Your task to perform on an android device: visit the assistant section in the google photos Image 0: 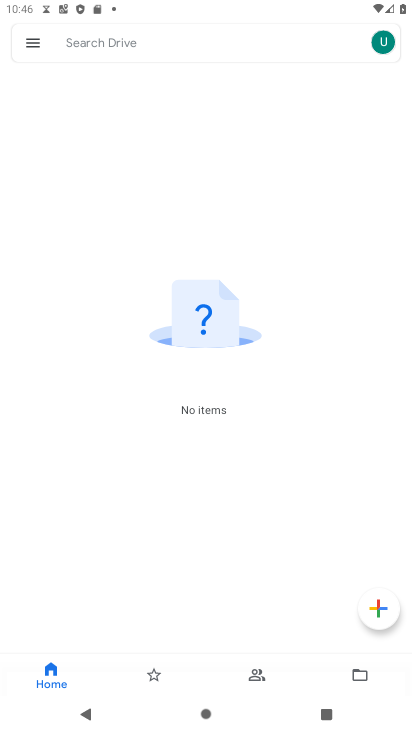
Step 0: press home button
Your task to perform on an android device: visit the assistant section in the google photos Image 1: 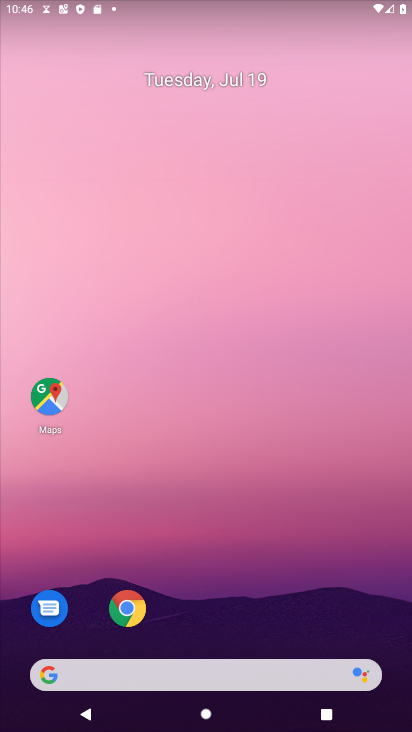
Step 1: drag from (244, 628) to (296, 171)
Your task to perform on an android device: visit the assistant section in the google photos Image 2: 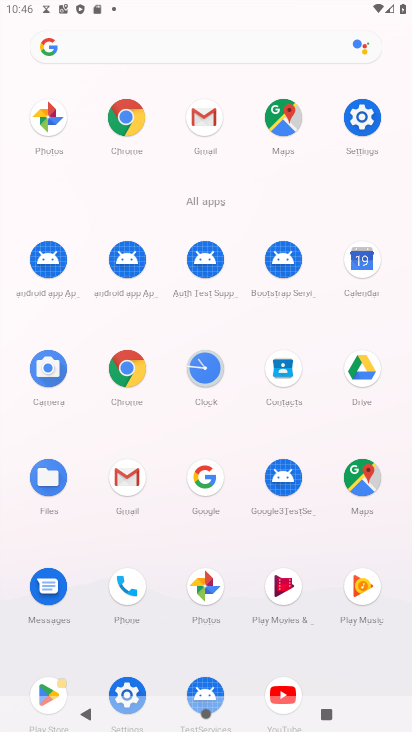
Step 2: click (213, 600)
Your task to perform on an android device: visit the assistant section in the google photos Image 3: 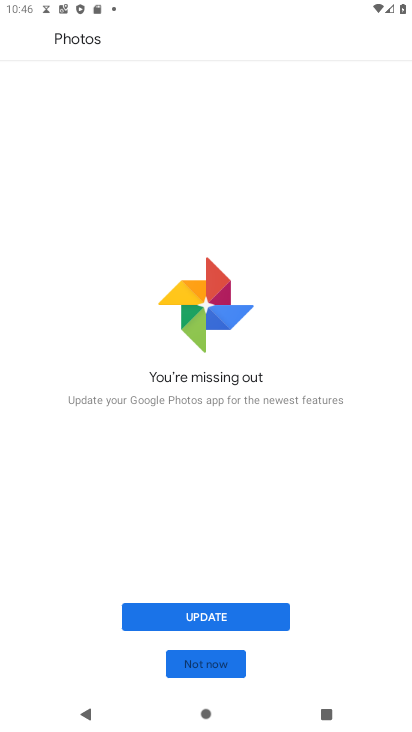
Step 3: click (215, 626)
Your task to perform on an android device: visit the assistant section in the google photos Image 4: 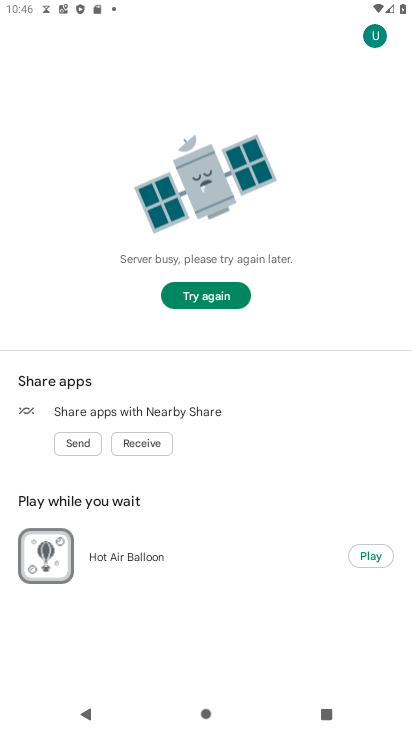
Step 4: click (196, 289)
Your task to perform on an android device: visit the assistant section in the google photos Image 5: 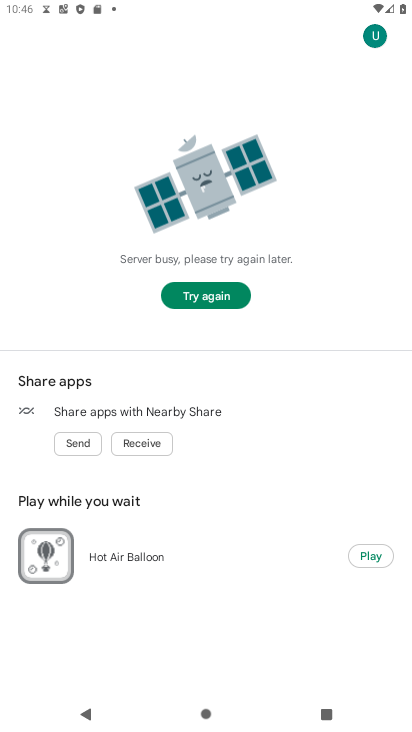
Step 5: click (199, 298)
Your task to perform on an android device: visit the assistant section in the google photos Image 6: 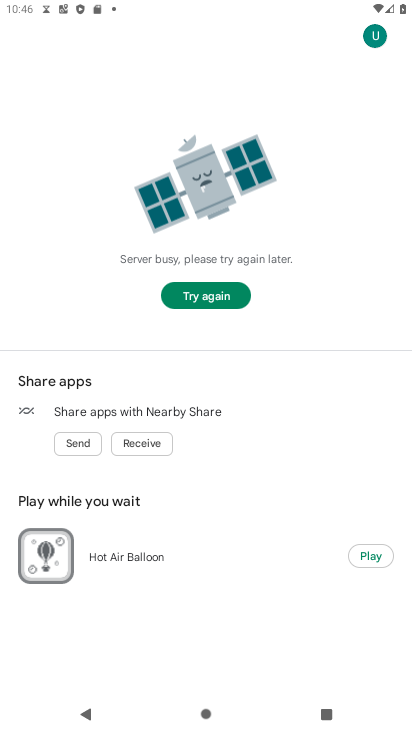
Step 6: task complete